Your task to perform on an android device: Open Yahoo.com Image 0: 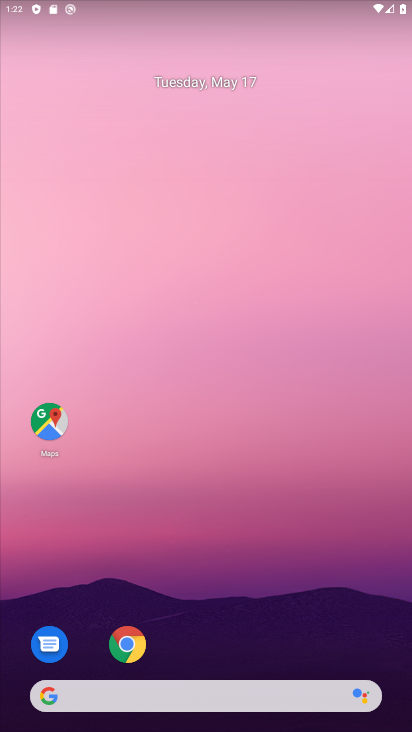
Step 0: click (140, 647)
Your task to perform on an android device: Open Yahoo.com Image 1: 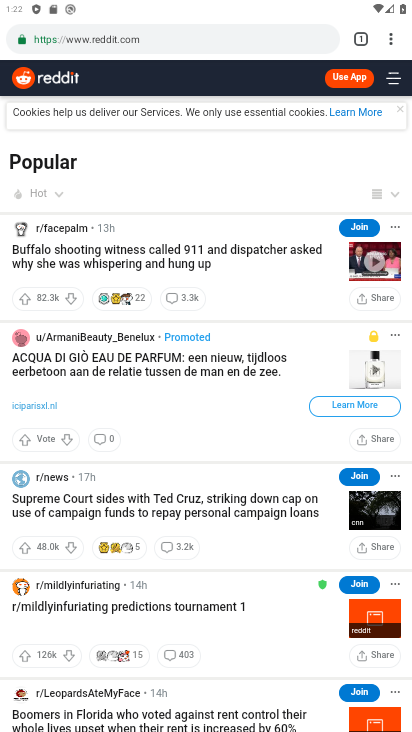
Step 1: click (167, 36)
Your task to perform on an android device: Open Yahoo.com Image 2: 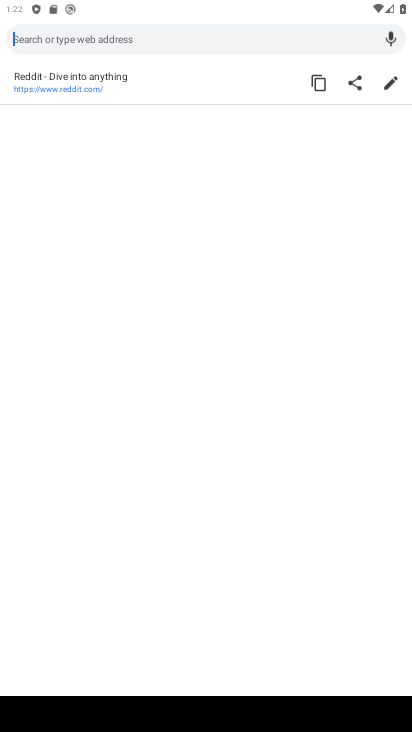
Step 2: type "yahoo.com"
Your task to perform on an android device: Open Yahoo.com Image 3: 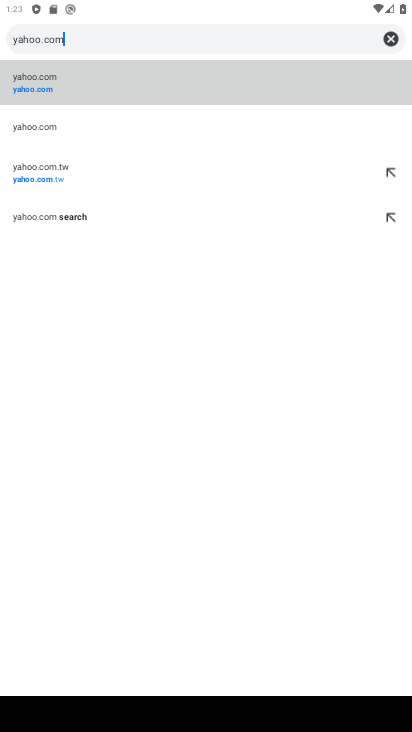
Step 3: click (81, 93)
Your task to perform on an android device: Open Yahoo.com Image 4: 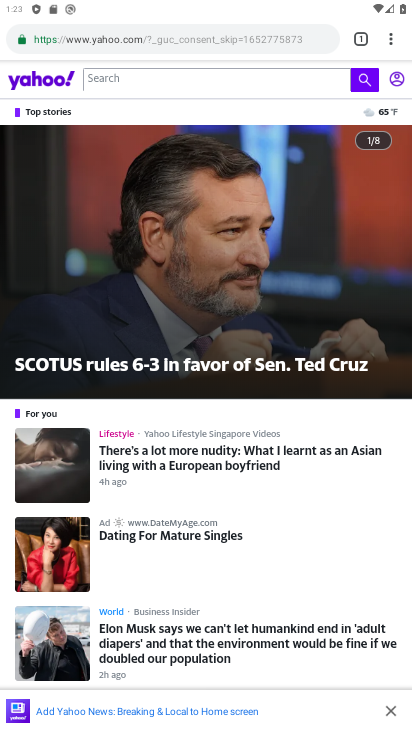
Step 4: task complete